Your task to perform on an android device: Go to Reddit.com Image 0: 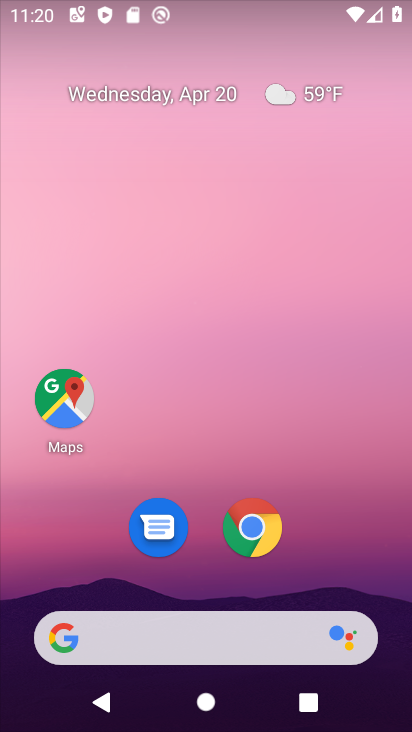
Step 0: drag from (356, 554) to (339, 124)
Your task to perform on an android device: Go to Reddit.com Image 1: 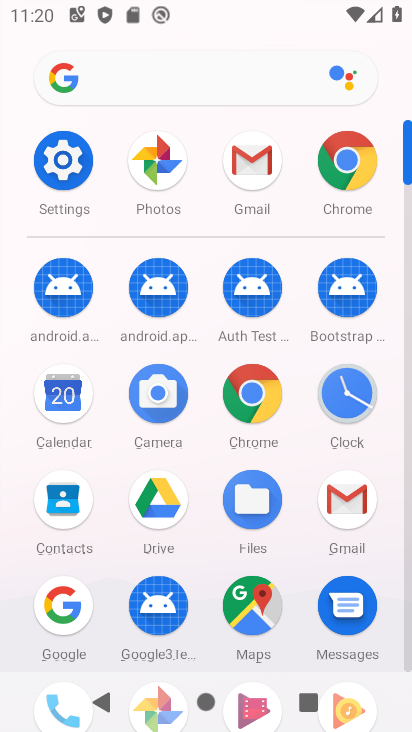
Step 1: click (257, 397)
Your task to perform on an android device: Go to Reddit.com Image 2: 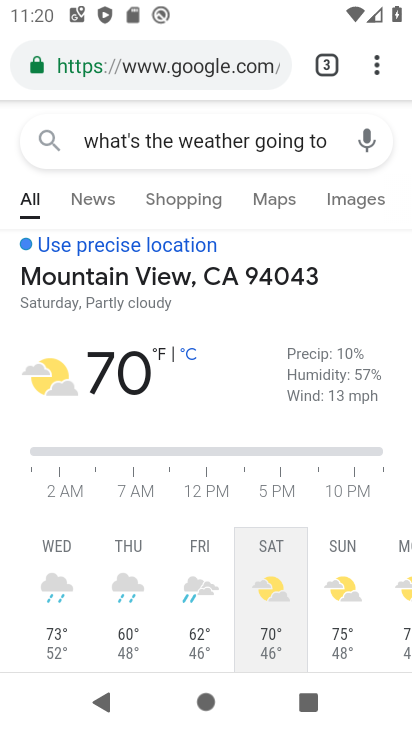
Step 2: click (231, 67)
Your task to perform on an android device: Go to Reddit.com Image 3: 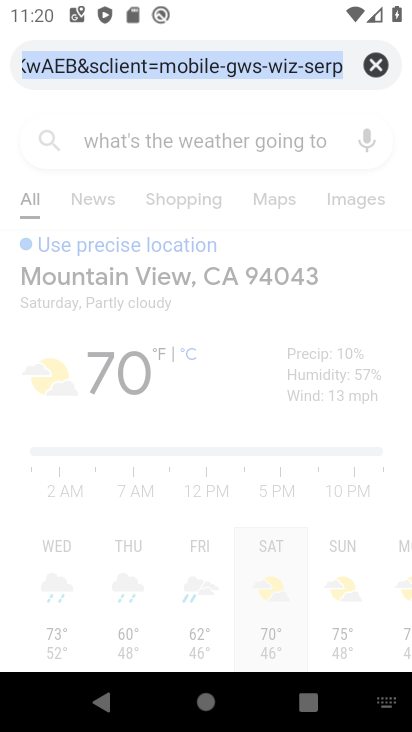
Step 3: click (373, 68)
Your task to perform on an android device: Go to Reddit.com Image 4: 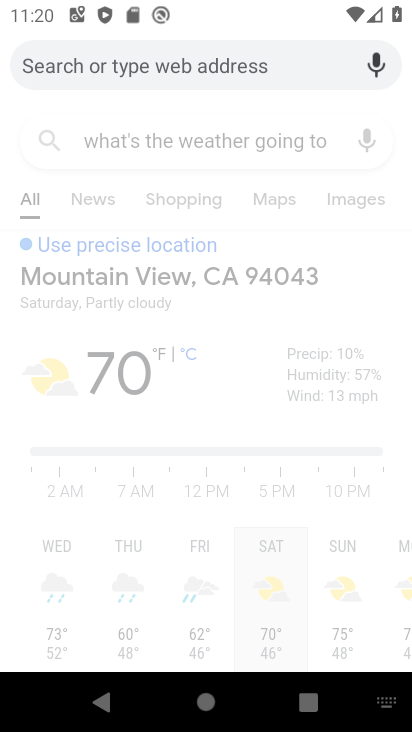
Step 4: type "reddit.com"
Your task to perform on an android device: Go to Reddit.com Image 5: 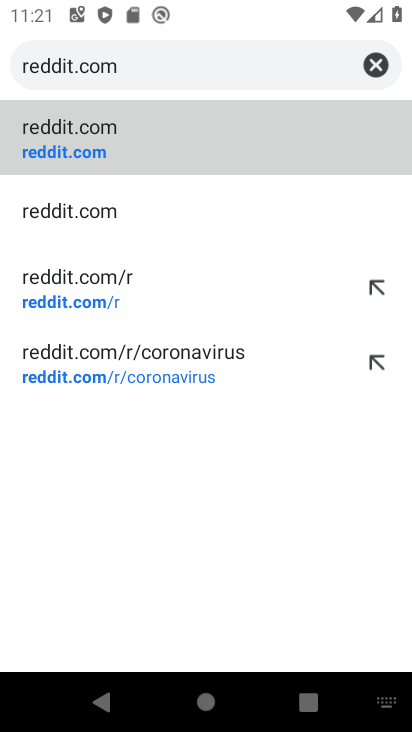
Step 5: click (76, 152)
Your task to perform on an android device: Go to Reddit.com Image 6: 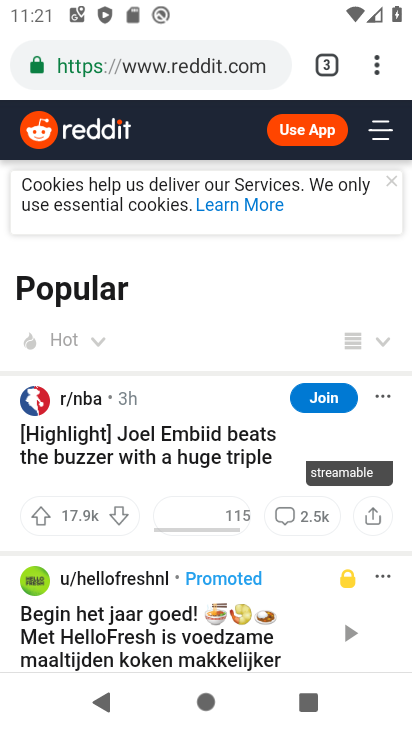
Step 6: task complete